Your task to perform on an android device: Open Chrome and go to the settings page Image 0: 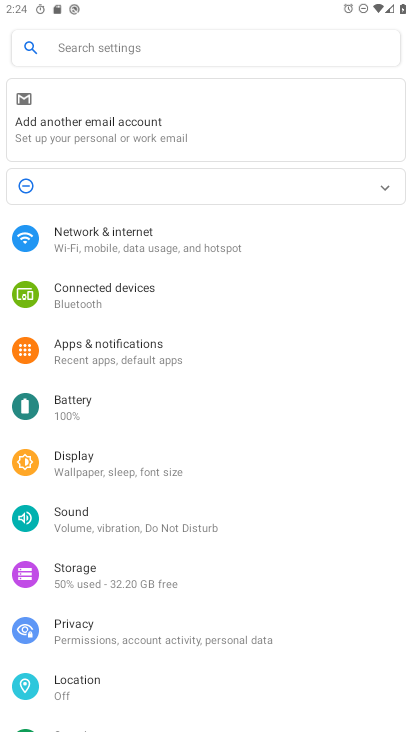
Step 0: press home button
Your task to perform on an android device: Open Chrome and go to the settings page Image 1: 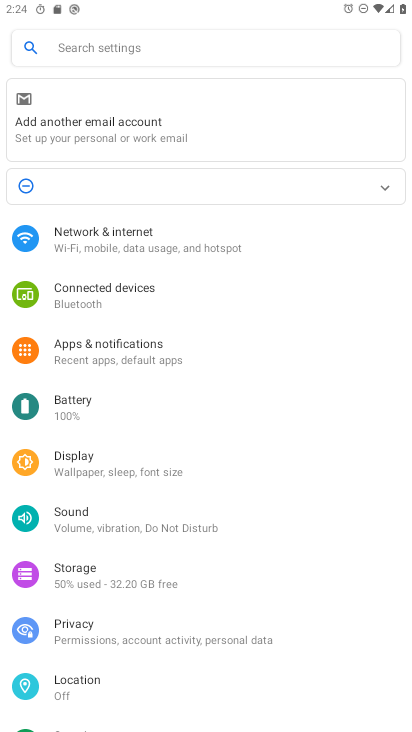
Step 1: press home button
Your task to perform on an android device: Open Chrome and go to the settings page Image 2: 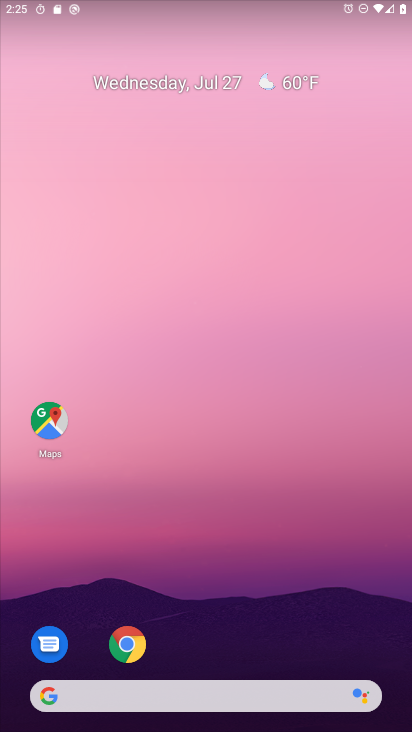
Step 2: drag from (192, 571) to (228, 201)
Your task to perform on an android device: Open Chrome and go to the settings page Image 3: 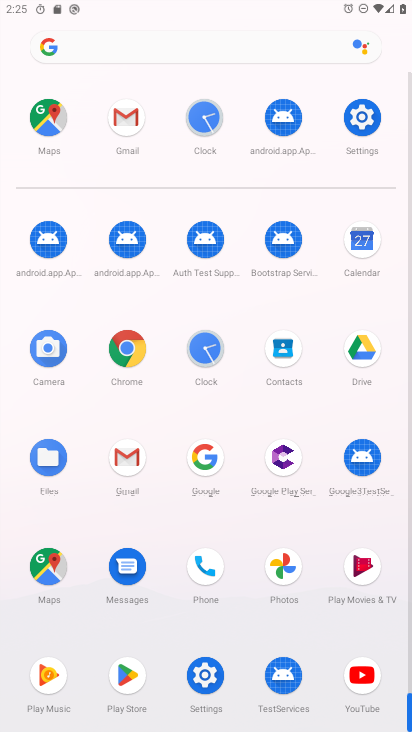
Step 3: click (132, 340)
Your task to perform on an android device: Open Chrome and go to the settings page Image 4: 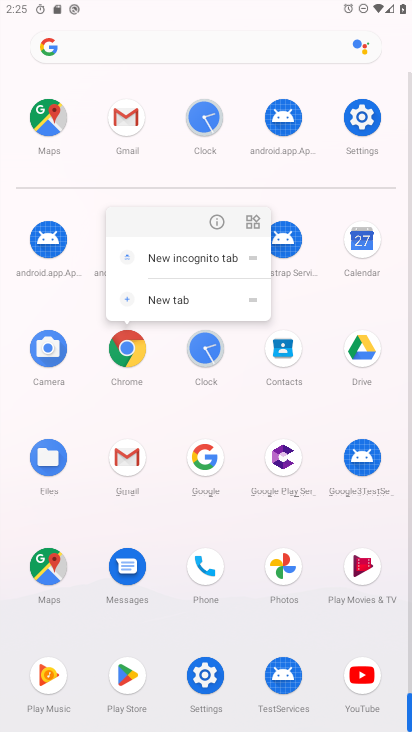
Step 4: click (208, 226)
Your task to perform on an android device: Open Chrome and go to the settings page Image 5: 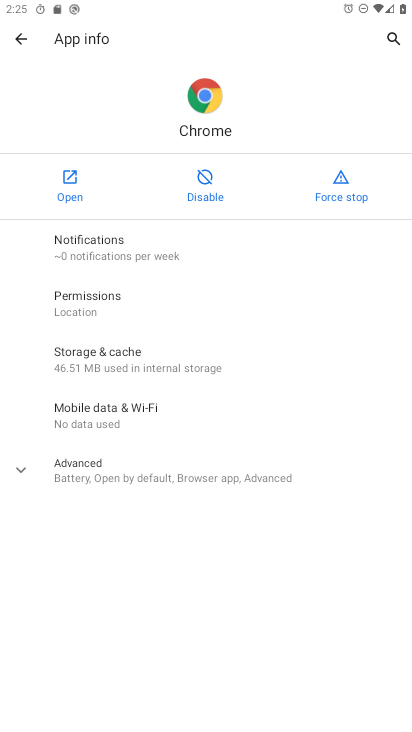
Step 5: click (51, 194)
Your task to perform on an android device: Open Chrome and go to the settings page Image 6: 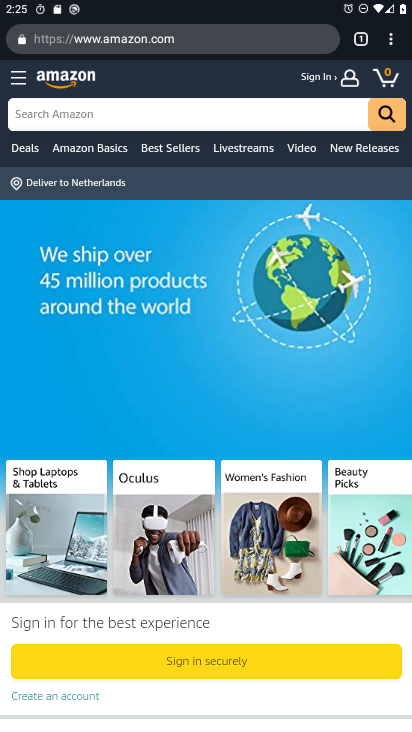
Step 6: task complete